Your task to perform on an android device: make emails show in primary in the gmail app Image 0: 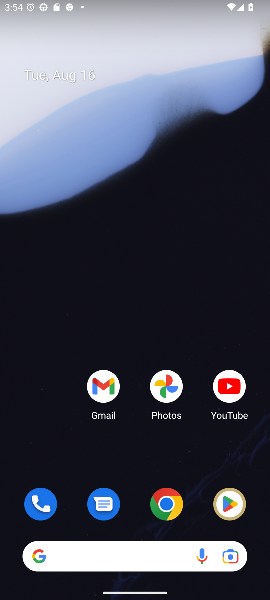
Step 0: click (104, 387)
Your task to perform on an android device: make emails show in primary in the gmail app Image 1: 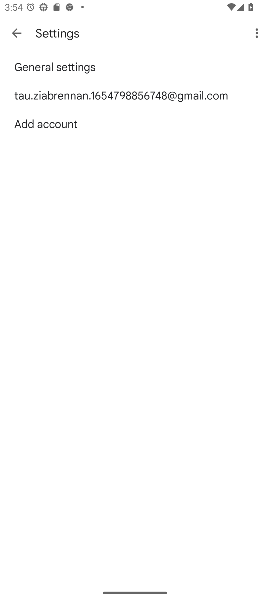
Step 1: click (19, 33)
Your task to perform on an android device: make emails show in primary in the gmail app Image 2: 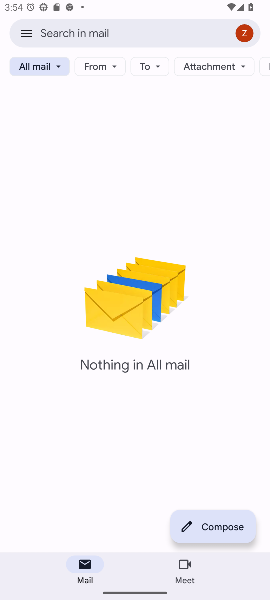
Step 2: click (26, 34)
Your task to perform on an android device: make emails show in primary in the gmail app Image 3: 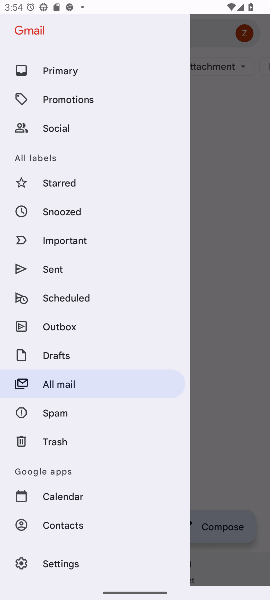
Step 3: click (58, 71)
Your task to perform on an android device: make emails show in primary in the gmail app Image 4: 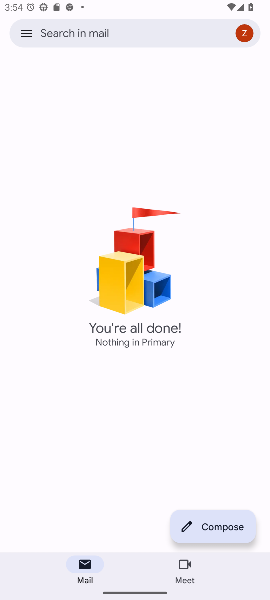
Step 4: task complete